Your task to perform on an android device: open app "Mercado Libre" Image 0: 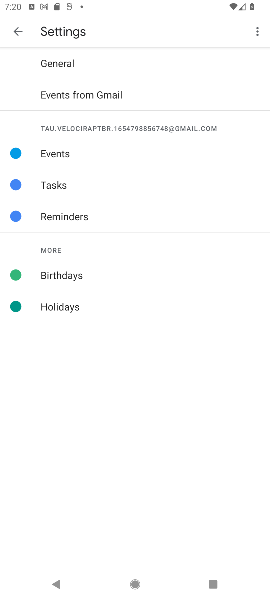
Step 0: press home button
Your task to perform on an android device: open app "Mercado Libre" Image 1: 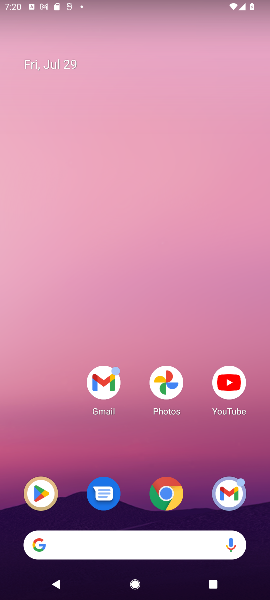
Step 1: drag from (150, 541) to (133, 68)
Your task to perform on an android device: open app "Mercado Libre" Image 2: 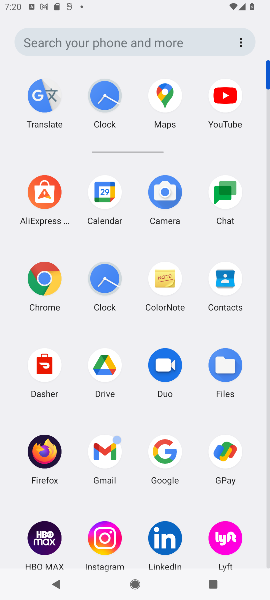
Step 2: drag from (193, 486) to (176, 119)
Your task to perform on an android device: open app "Mercado Libre" Image 3: 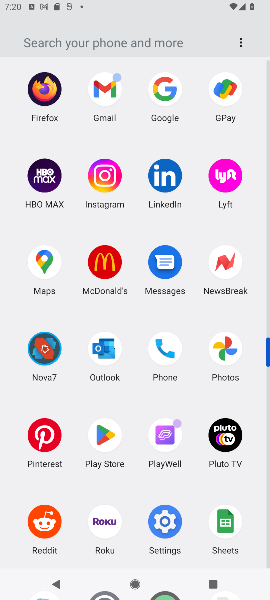
Step 3: click (102, 436)
Your task to perform on an android device: open app "Mercado Libre" Image 4: 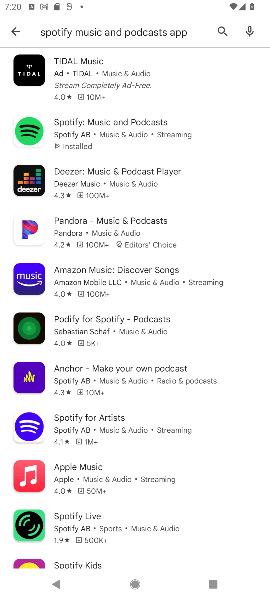
Step 4: click (218, 28)
Your task to perform on an android device: open app "Mercado Libre" Image 5: 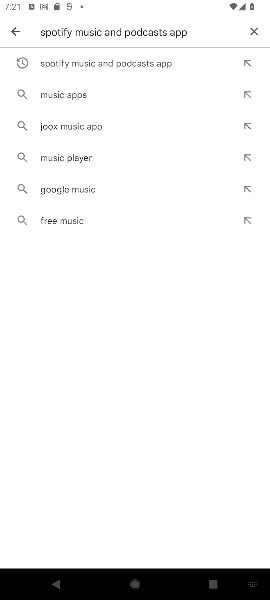
Step 5: click (254, 30)
Your task to perform on an android device: open app "Mercado Libre" Image 6: 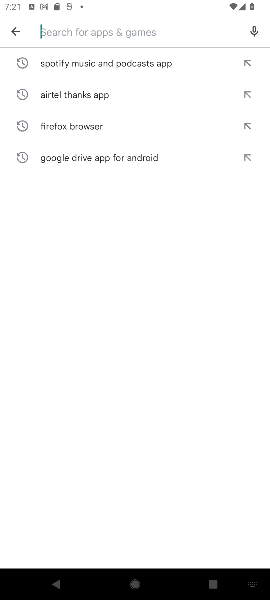
Step 6: type "Mercado Libre"
Your task to perform on an android device: open app "Mercado Libre" Image 7: 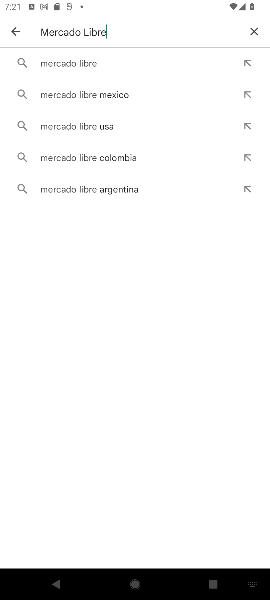
Step 7: click (81, 61)
Your task to perform on an android device: open app "Mercado Libre" Image 8: 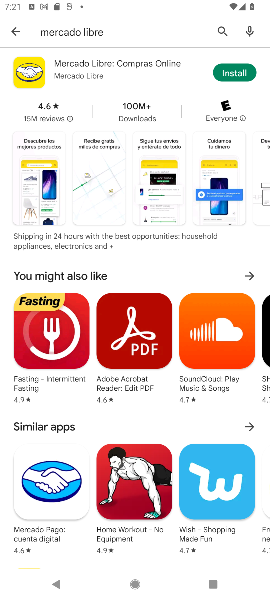
Step 8: click (64, 72)
Your task to perform on an android device: open app "Mercado Libre" Image 9: 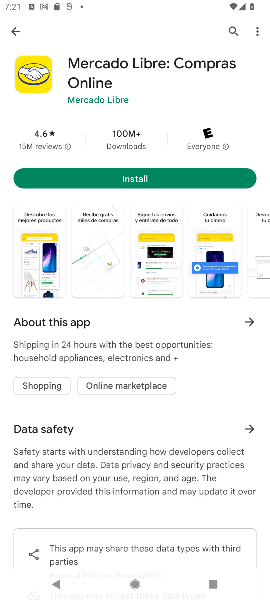
Step 9: task complete